Your task to perform on an android device: change notifications settings Image 0: 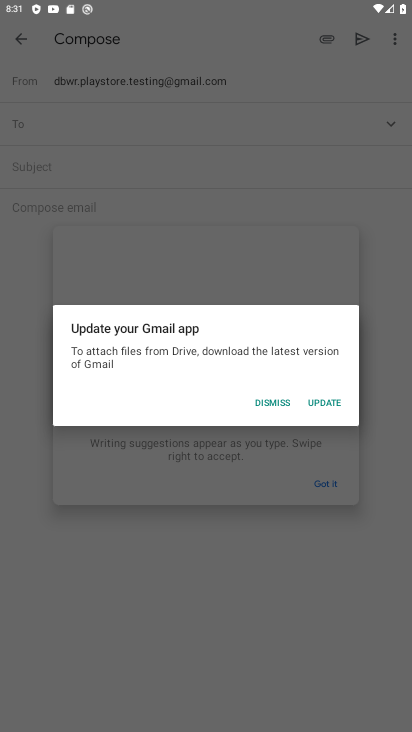
Step 0: press back button
Your task to perform on an android device: change notifications settings Image 1: 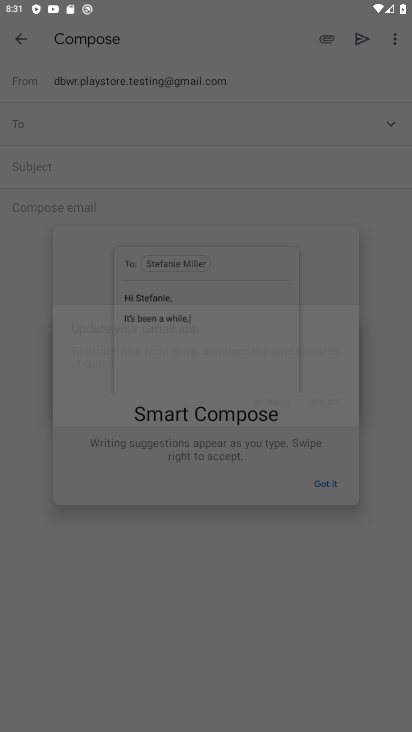
Step 1: press home button
Your task to perform on an android device: change notifications settings Image 2: 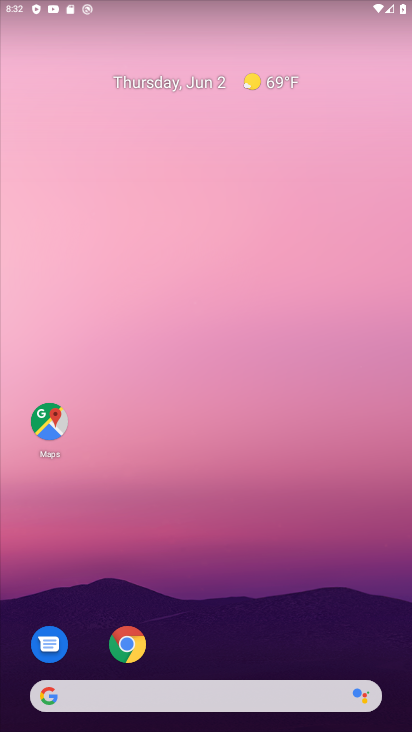
Step 2: drag from (197, 578) to (129, 3)
Your task to perform on an android device: change notifications settings Image 3: 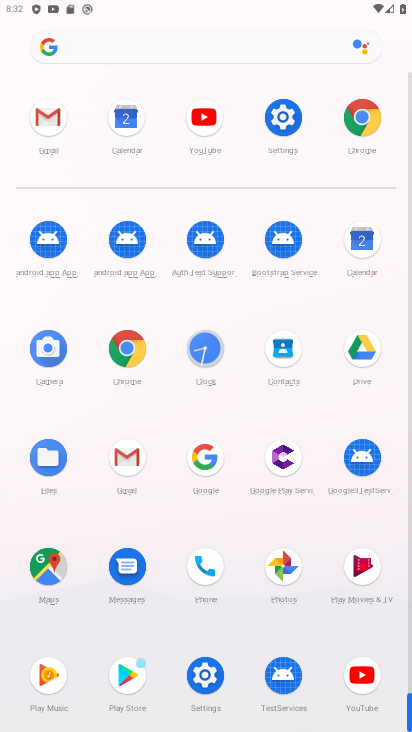
Step 3: drag from (10, 578) to (12, 274)
Your task to perform on an android device: change notifications settings Image 4: 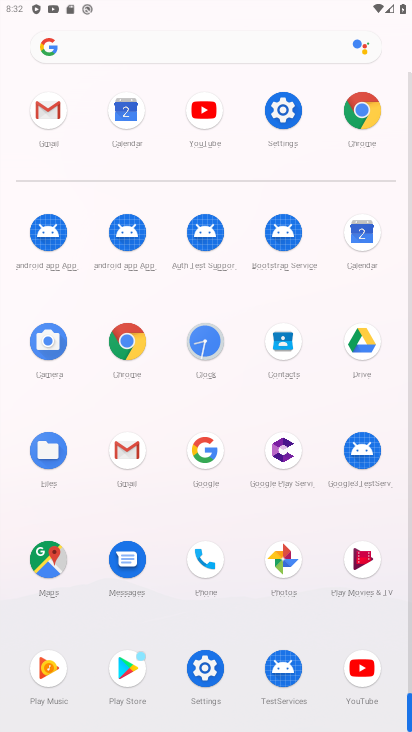
Step 4: click (202, 667)
Your task to perform on an android device: change notifications settings Image 5: 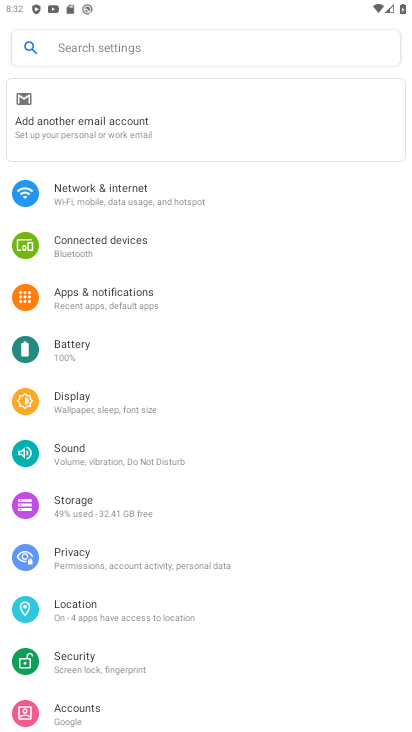
Step 5: click (120, 287)
Your task to perform on an android device: change notifications settings Image 6: 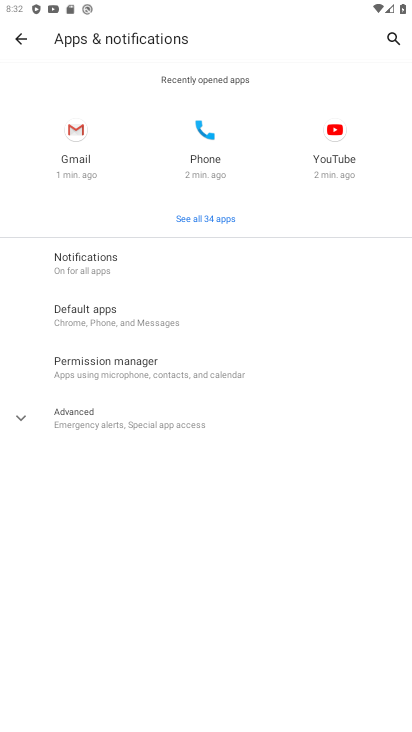
Step 6: click (20, 404)
Your task to perform on an android device: change notifications settings Image 7: 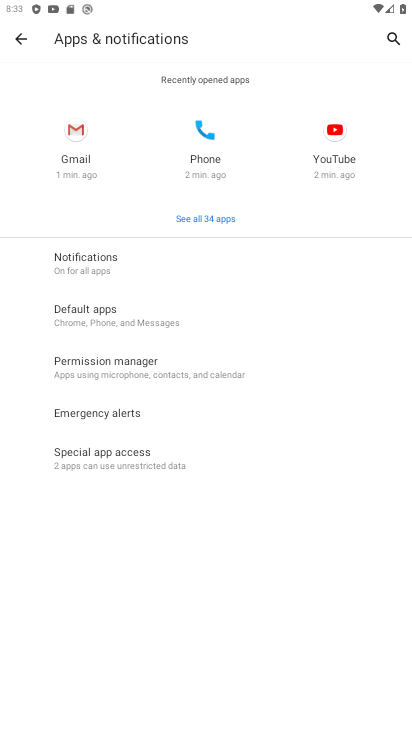
Step 7: task complete